Your task to perform on an android device: turn off notifications in google photos Image 0: 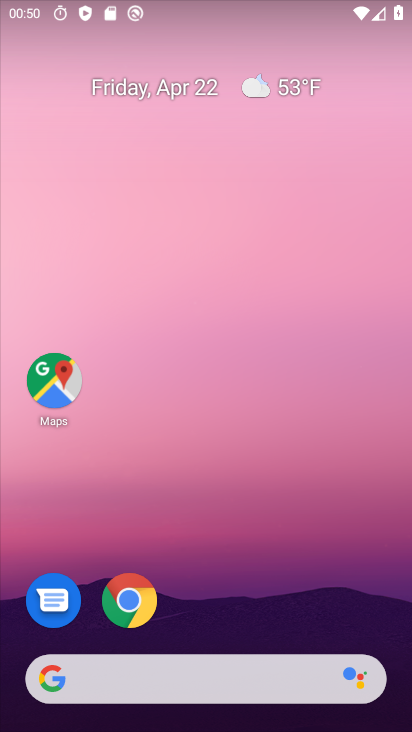
Step 0: drag from (212, 598) to (241, 122)
Your task to perform on an android device: turn off notifications in google photos Image 1: 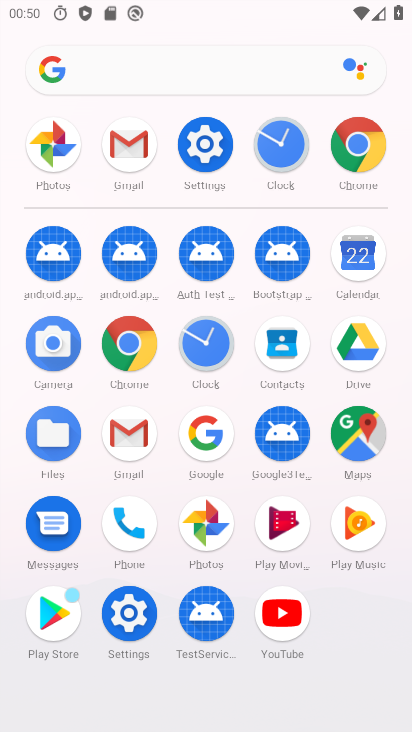
Step 1: click (206, 524)
Your task to perform on an android device: turn off notifications in google photos Image 2: 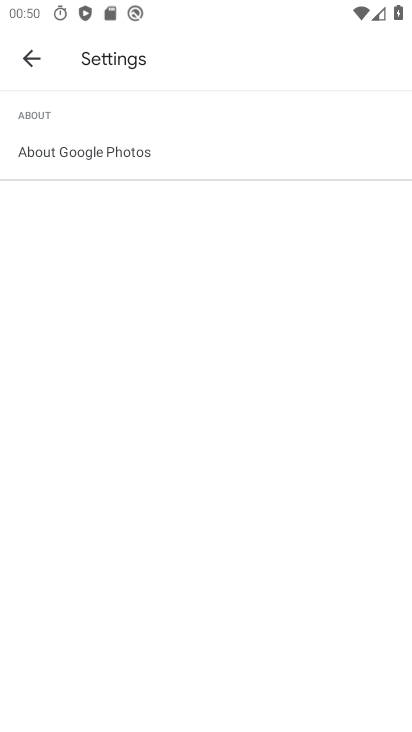
Step 2: click (25, 65)
Your task to perform on an android device: turn off notifications in google photos Image 3: 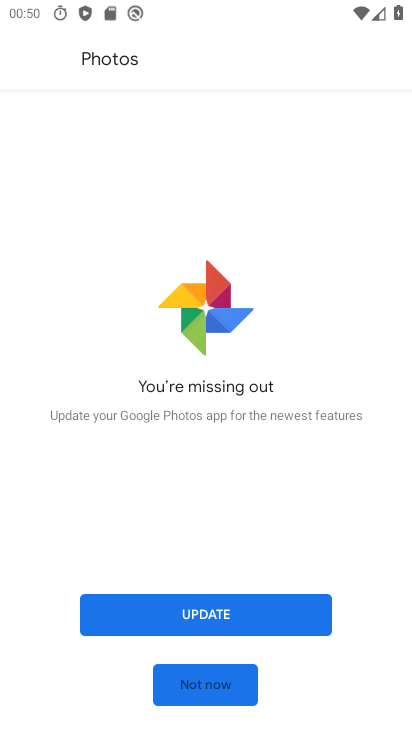
Step 3: click (192, 612)
Your task to perform on an android device: turn off notifications in google photos Image 4: 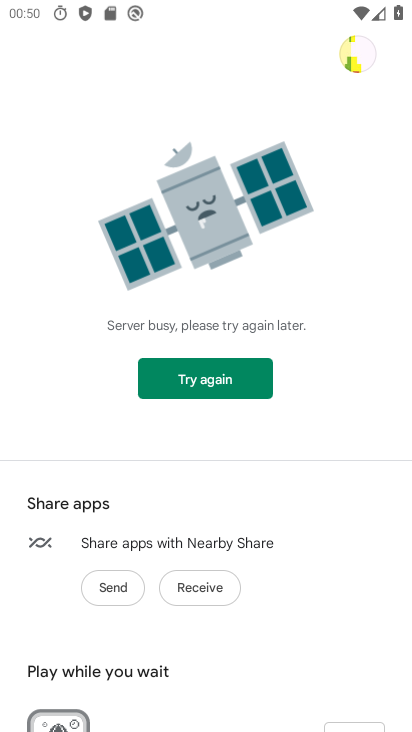
Step 4: click (215, 379)
Your task to perform on an android device: turn off notifications in google photos Image 5: 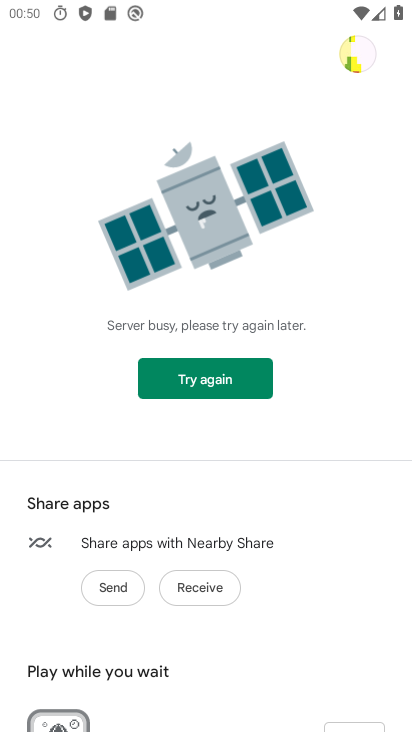
Step 5: task complete